Your task to perform on an android device: turn on airplane mode Image 0: 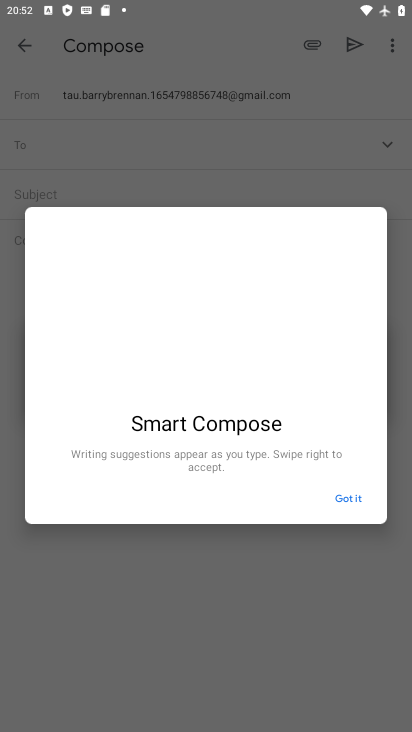
Step 0: press home button
Your task to perform on an android device: turn on airplane mode Image 1: 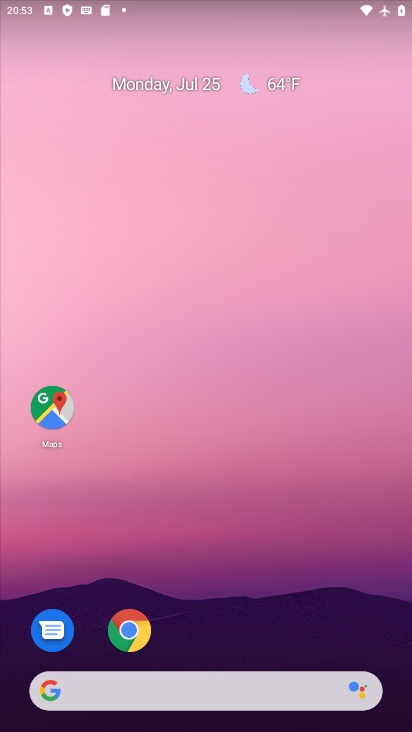
Step 1: drag from (379, 639) to (319, 185)
Your task to perform on an android device: turn on airplane mode Image 2: 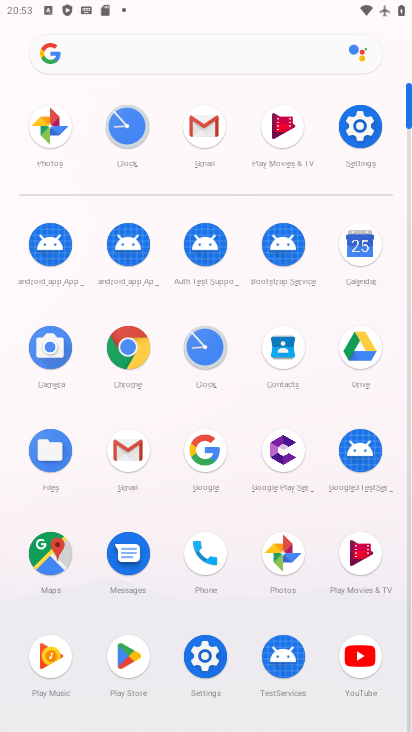
Step 2: click (205, 657)
Your task to perform on an android device: turn on airplane mode Image 3: 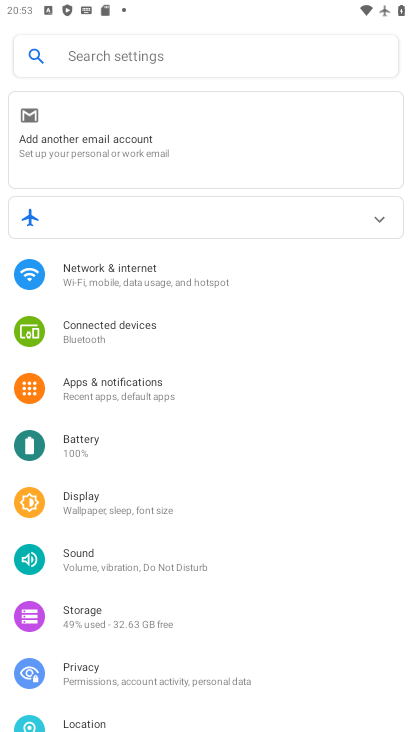
Step 3: click (91, 266)
Your task to perform on an android device: turn on airplane mode Image 4: 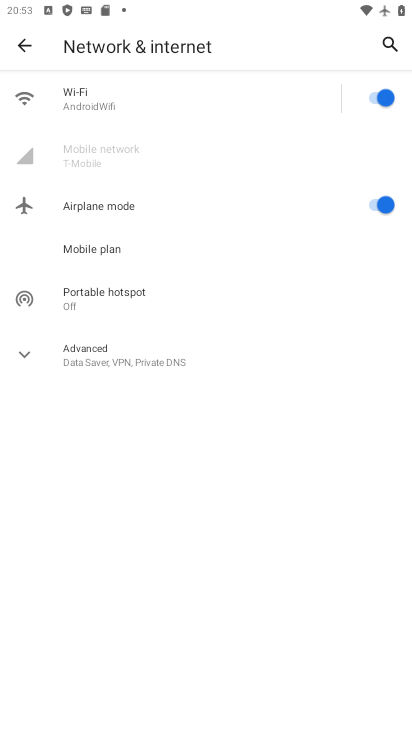
Step 4: task complete